Your task to perform on an android device: Check the news Image 0: 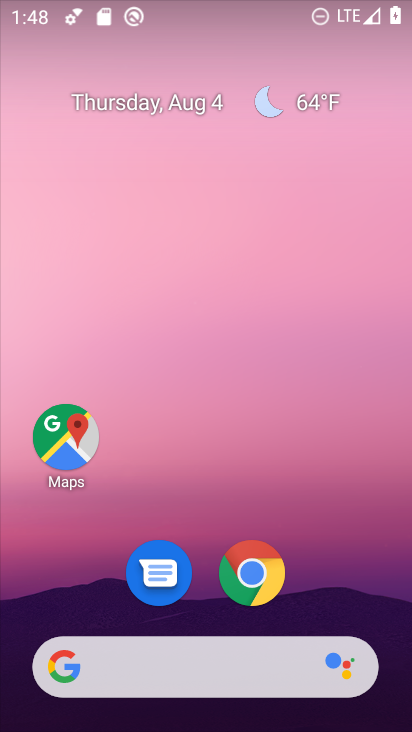
Step 0: drag from (347, 549) to (355, 0)
Your task to perform on an android device: Check the news Image 1: 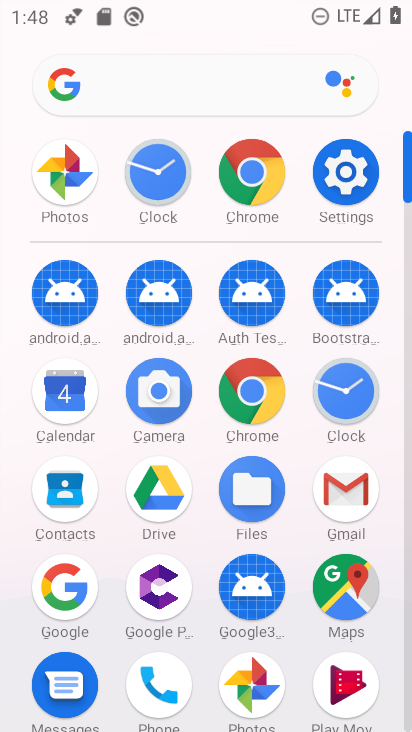
Step 1: click (247, 166)
Your task to perform on an android device: Check the news Image 2: 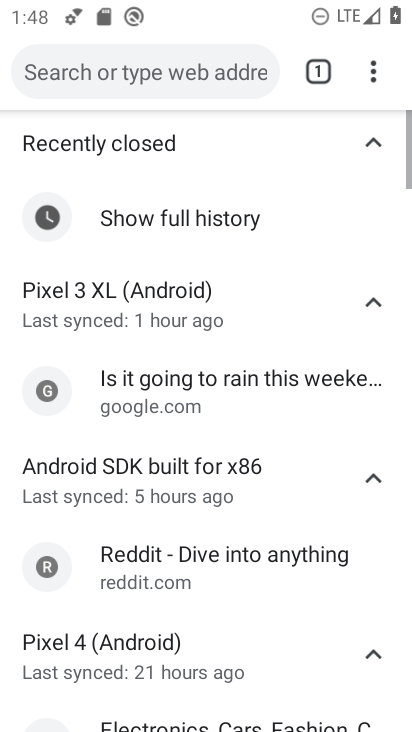
Step 2: click (200, 76)
Your task to perform on an android device: Check the news Image 3: 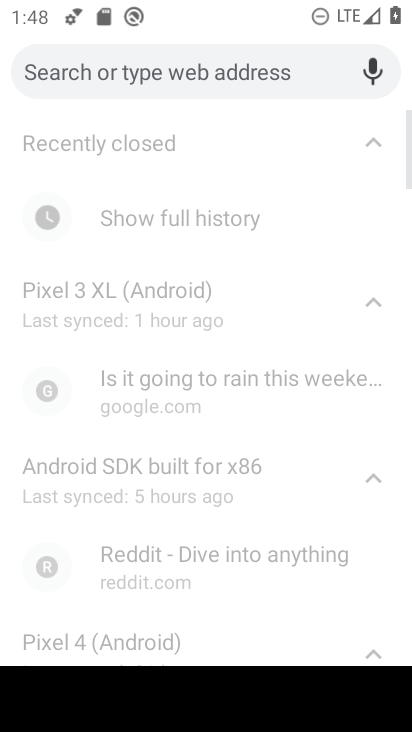
Step 3: type ""
Your task to perform on an android device: Check the news Image 4: 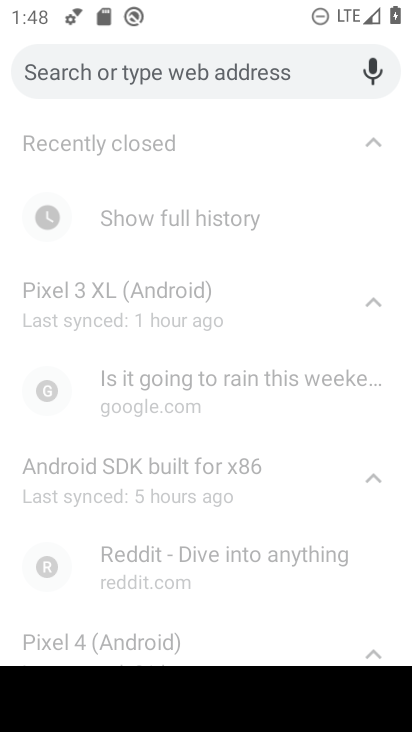
Step 4: type "news"
Your task to perform on an android device: Check the news Image 5: 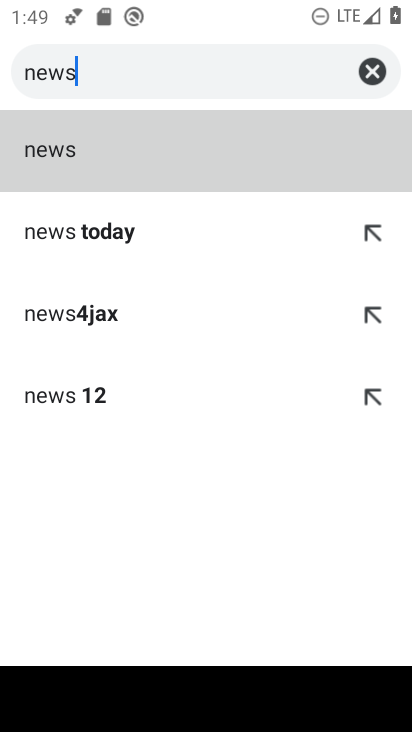
Step 5: click (46, 151)
Your task to perform on an android device: Check the news Image 6: 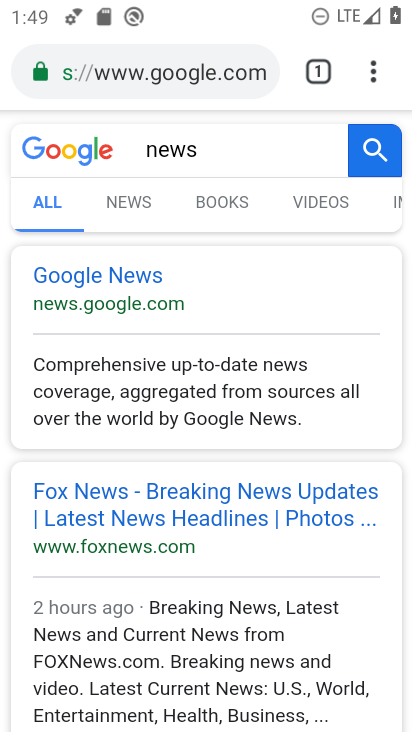
Step 6: click (102, 270)
Your task to perform on an android device: Check the news Image 7: 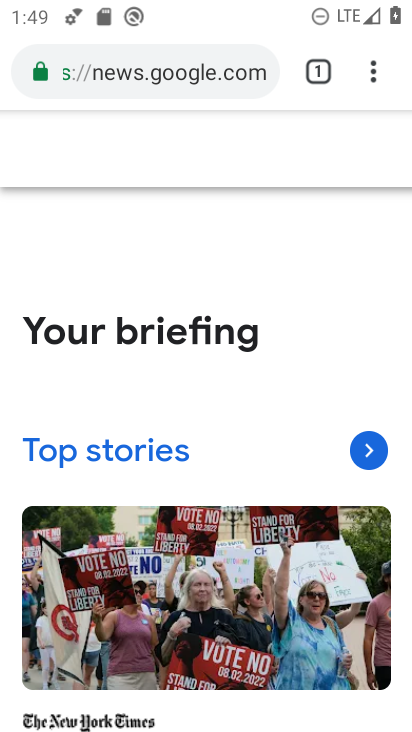
Step 7: task complete